Your task to perform on an android device: Find coffee shops on Maps Image 0: 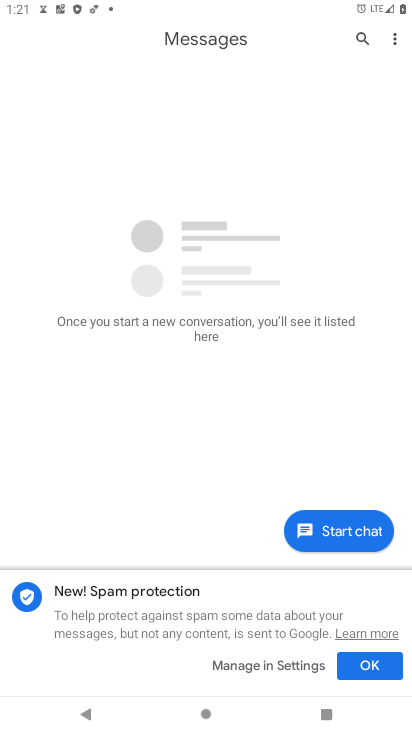
Step 0: press home button
Your task to perform on an android device: Find coffee shops on Maps Image 1: 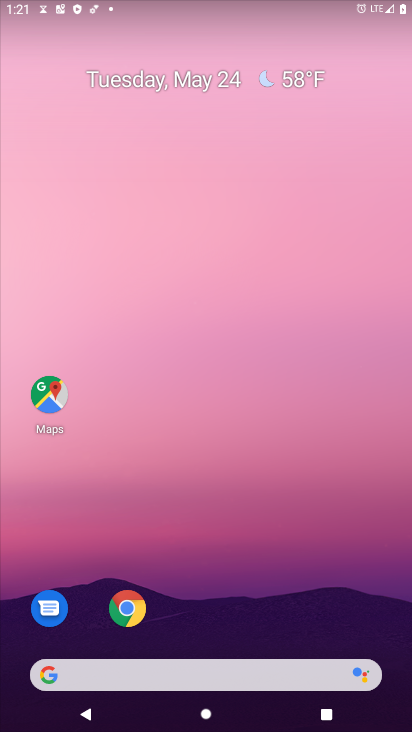
Step 1: drag from (245, 698) to (209, 40)
Your task to perform on an android device: Find coffee shops on Maps Image 2: 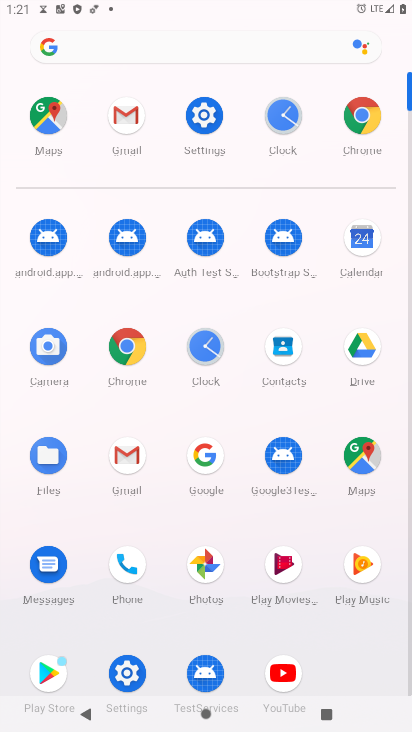
Step 2: click (49, 121)
Your task to perform on an android device: Find coffee shops on Maps Image 3: 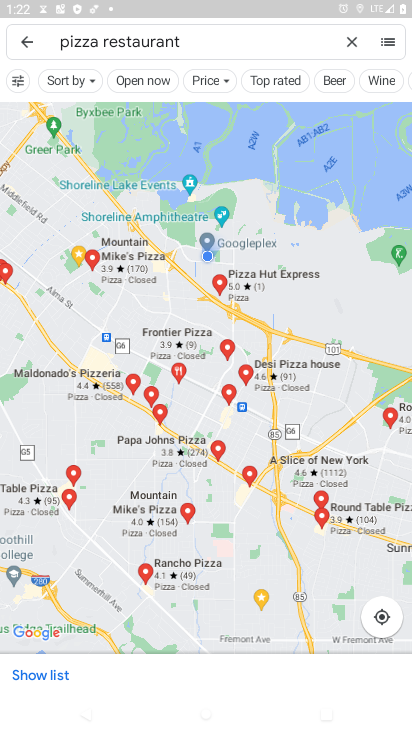
Step 3: click (358, 49)
Your task to perform on an android device: Find coffee shops on Maps Image 4: 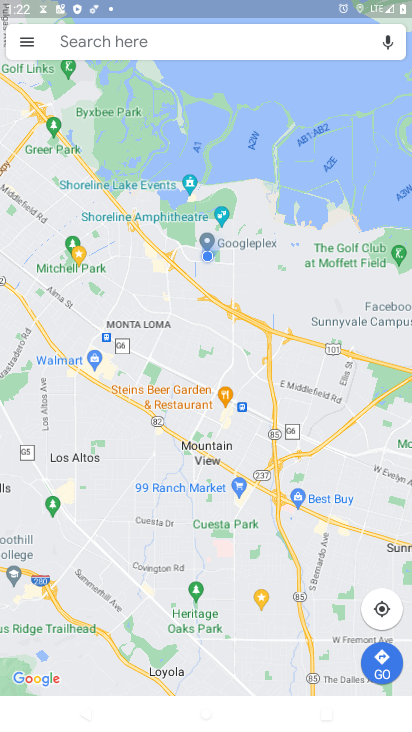
Step 4: click (184, 31)
Your task to perform on an android device: Find coffee shops on Maps Image 5: 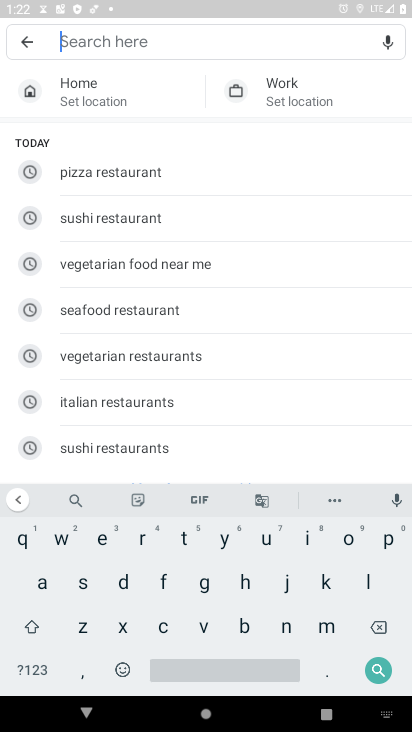
Step 5: click (155, 629)
Your task to perform on an android device: Find coffee shops on Maps Image 6: 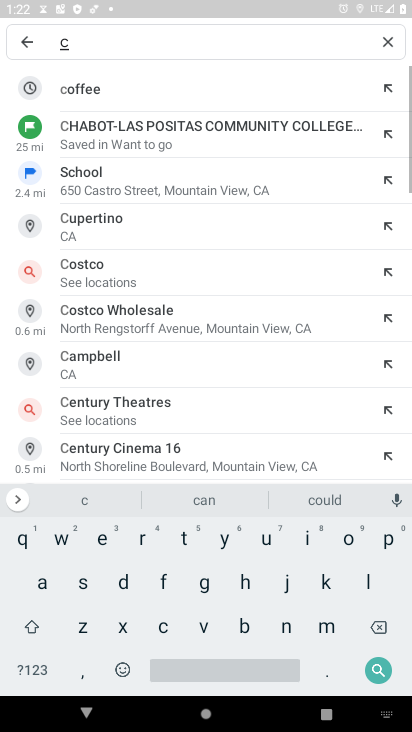
Step 6: click (145, 93)
Your task to perform on an android device: Find coffee shops on Maps Image 7: 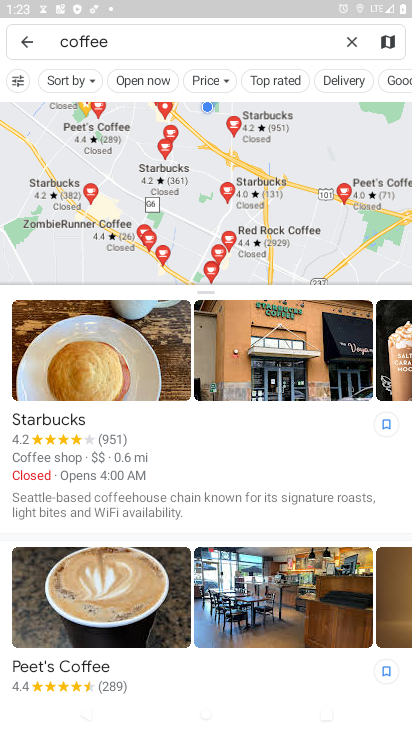
Step 7: task complete